Your task to perform on an android device: turn on priority inbox in the gmail app Image 0: 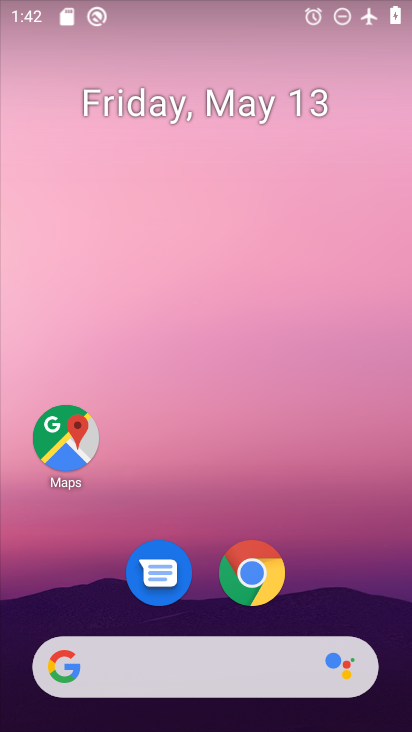
Step 0: drag from (167, 718) to (178, 281)
Your task to perform on an android device: turn on priority inbox in the gmail app Image 1: 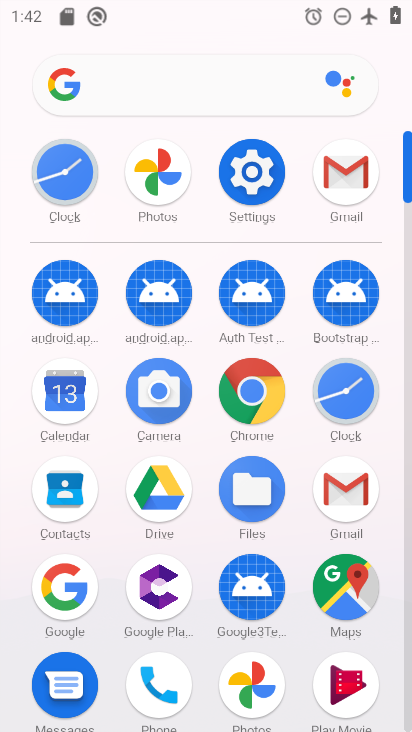
Step 1: click (332, 169)
Your task to perform on an android device: turn on priority inbox in the gmail app Image 2: 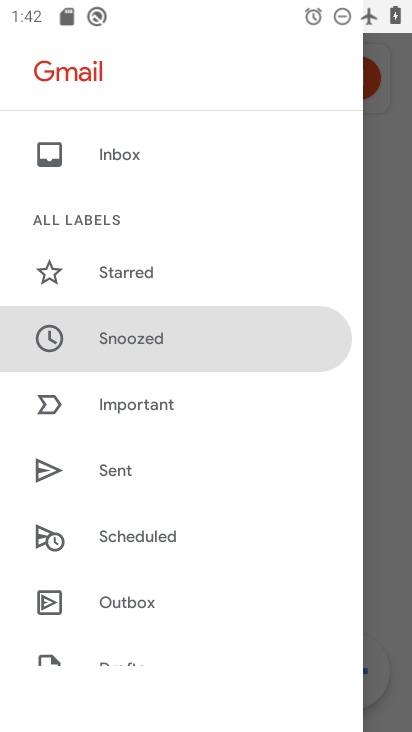
Step 2: drag from (128, 640) to (132, 75)
Your task to perform on an android device: turn on priority inbox in the gmail app Image 3: 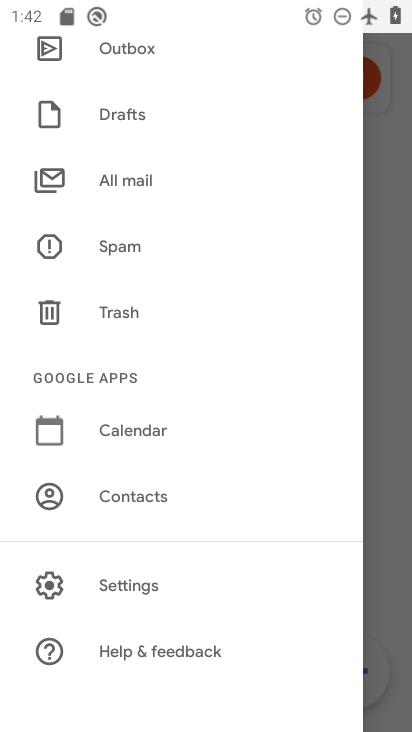
Step 3: click (156, 574)
Your task to perform on an android device: turn on priority inbox in the gmail app Image 4: 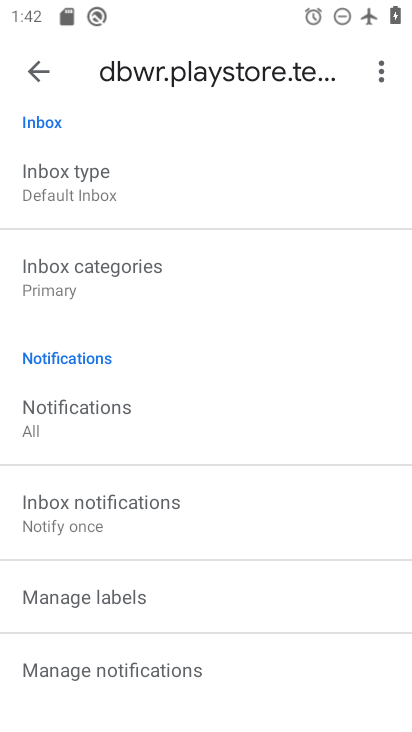
Step 4: click (112, 179)
Your task to perform on an android device: turn on priority inbox in the gmail app Image 5: 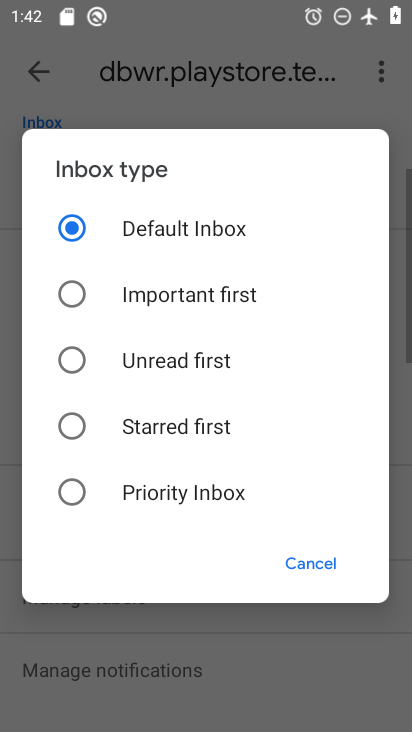
Step 5: click (145, 485)
Your task to perform on an android device: turn on priority inbox in the gmail app Image 6: 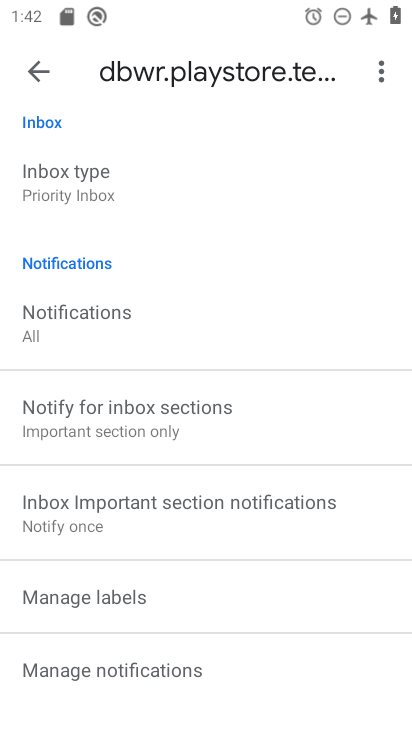
Step 6: task complete